Your task to perform on an android device: toggle javascript in the chrome app Image 0: 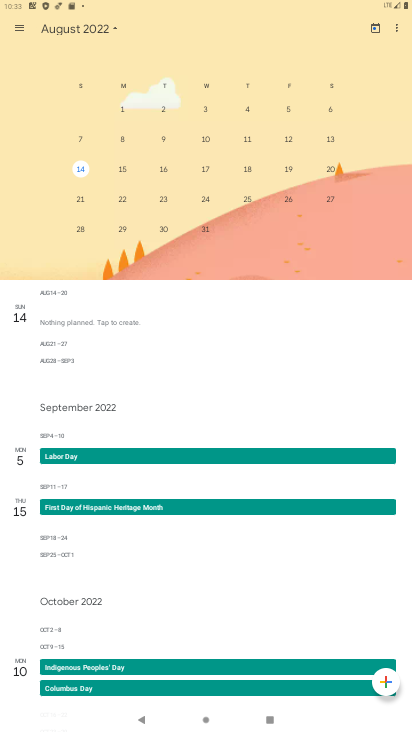
Step 0: press home button
Your task to perform on an android device: toggle javascript in the chrome app Image 1: 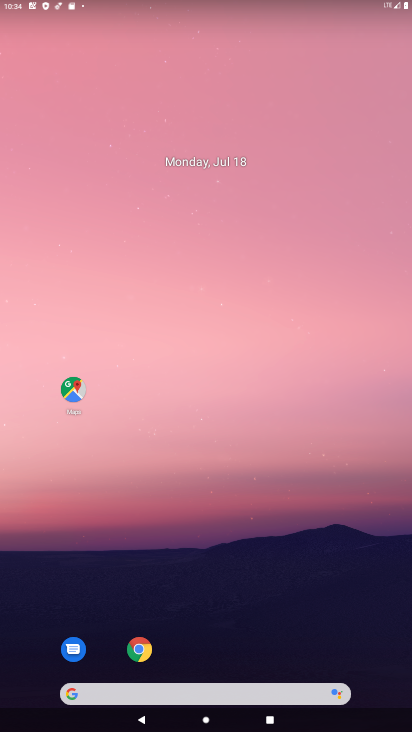
Step 1: click (138, 659)
Your task to perform on an android device: toggle javascript in the chrome app Image 2: 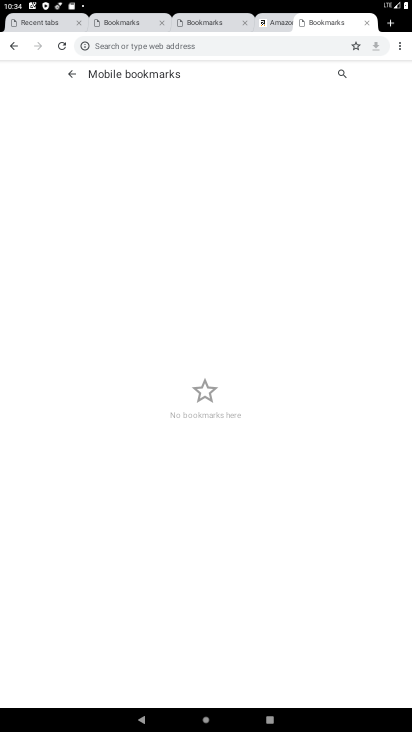
Step 2: click (402, 42)
Your task to perform on an android device: toggle javascript in the chrome app Image 3: 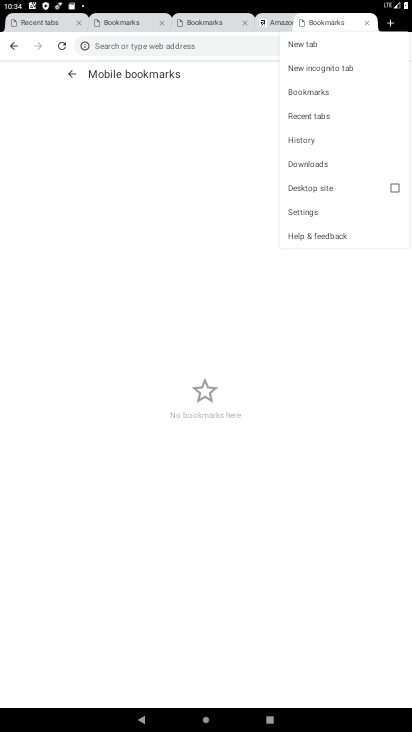
Step 3: click (332, 213)
Your task to perform on an android device: toggle javascript in the chrome app Image 4: 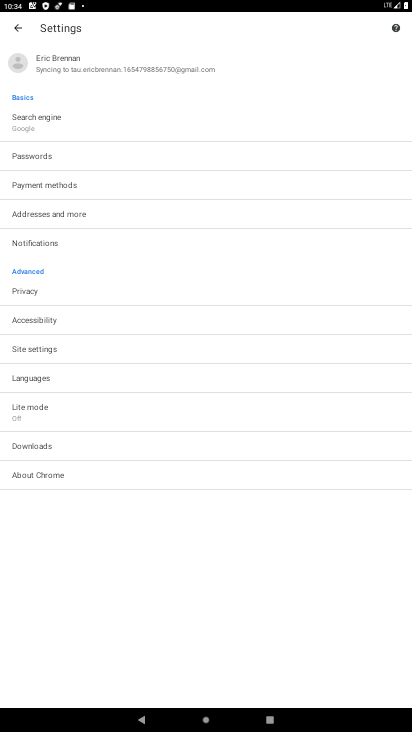
Step 4: click (25, 357)
Your task to perform on an android device: toggle javascript in the chrome app Image 5: 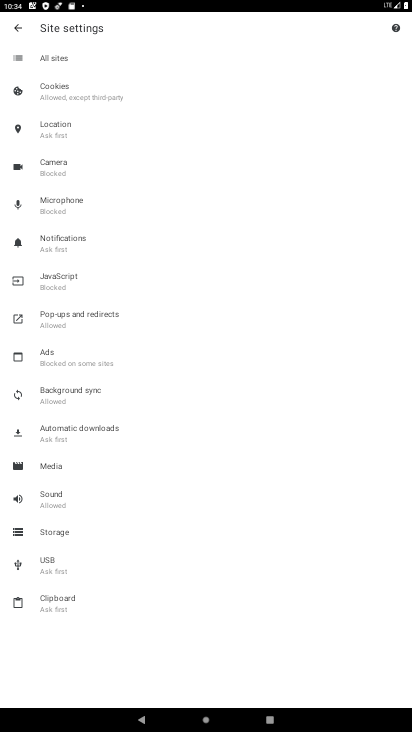
Step 5: click (66, 283)
Your task to perform on an android device: toggle javascript in the chrome app Image 6: 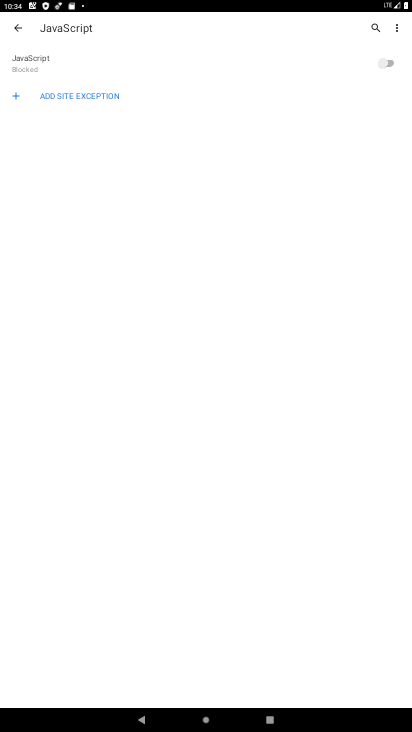
Step 6: click (389, 61)
Your task to perform on an android device: toggle javascript in the chrome app Image 7: 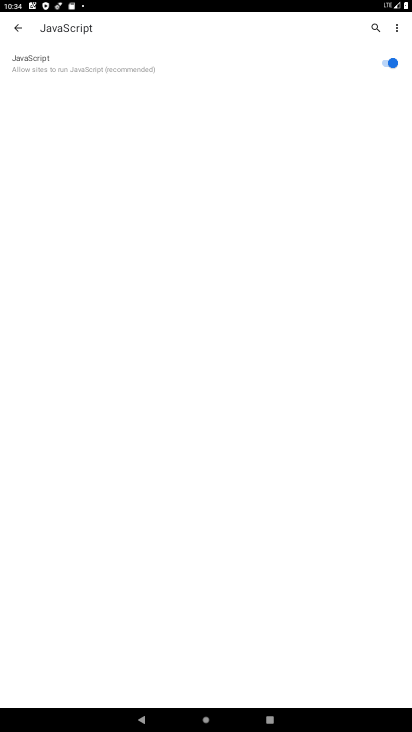
Step 7: task complete